Your task to perform on an android device: clear history in the chrome app Image 0: 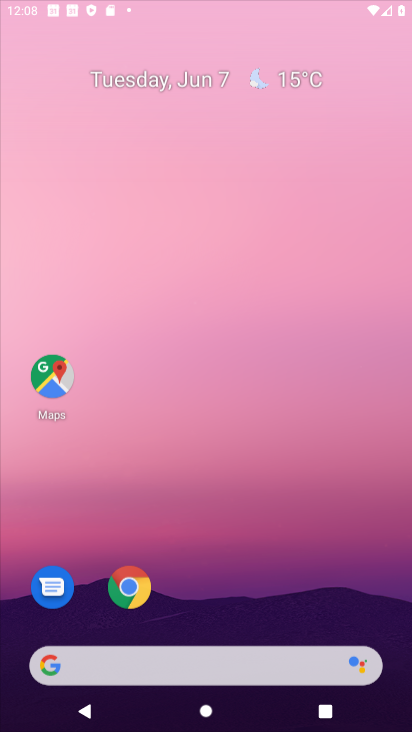
Step 0: press back button
Your task to perform on an android device: clear history in the chrome app Image 1: 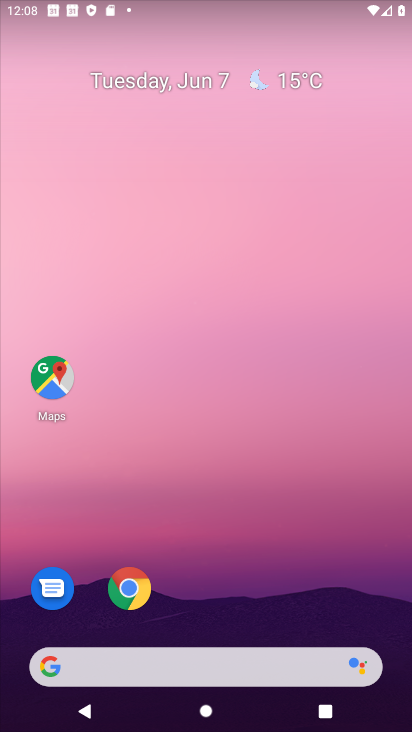
Step 1: click (142, 586)
Your task to perform on an android device: clear history in the chrome app Image 2: 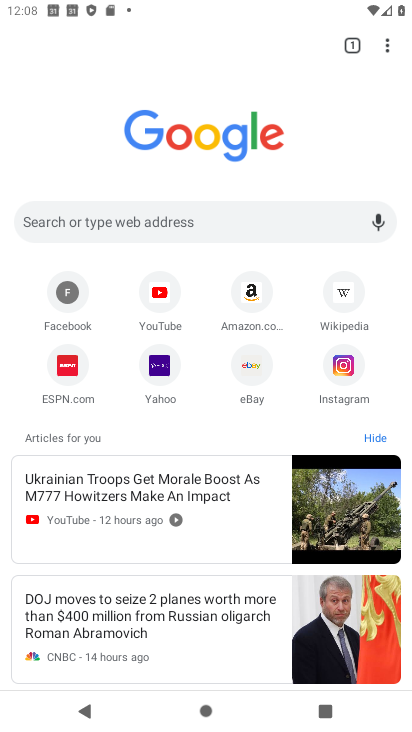
Step 2: task complete